Your task to perform on an android device: Open Chrome and go to settings Image 0: 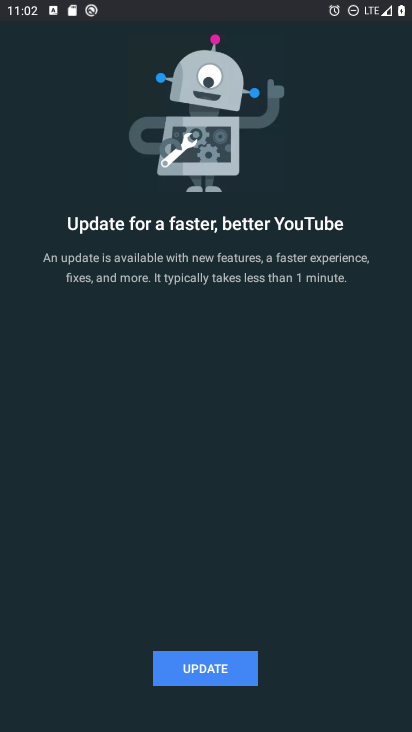
Step 0: press home button
Your task to perform on an android device: Open Chrome and go to settings Image 1: 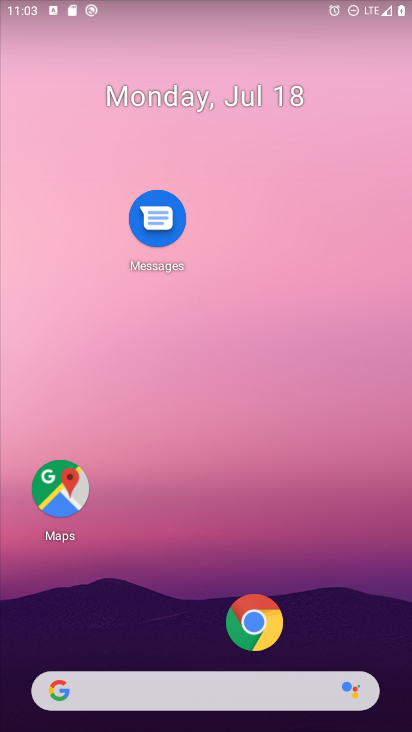
Step 1: drag from (195, 665) to (209, 156)
Your task to perform on an android device: Open Chrome and go to settings Image 2: 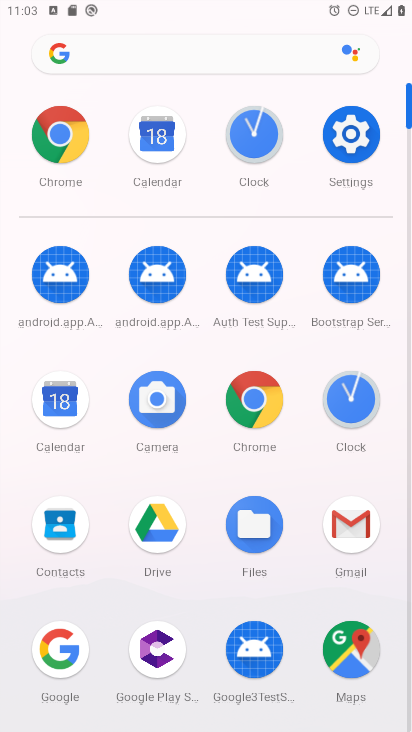
Step 2: click (254, 421)
Your task to perform on an android device: Open Chrome and go to settings Image 3: 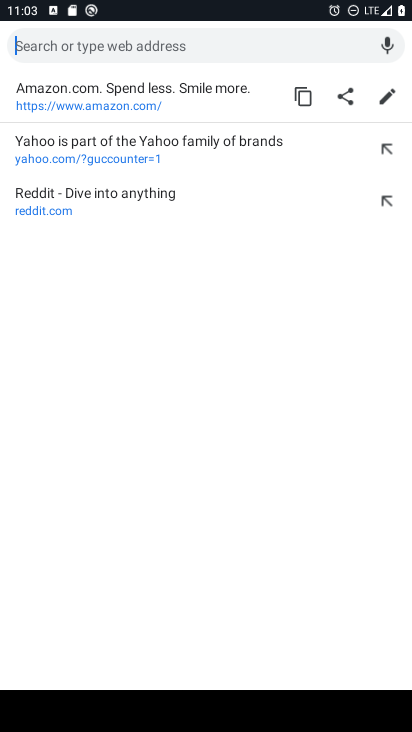
Step 3: press back button
Your task to perform on an android device: Open Chrome and go to settings Image 4: 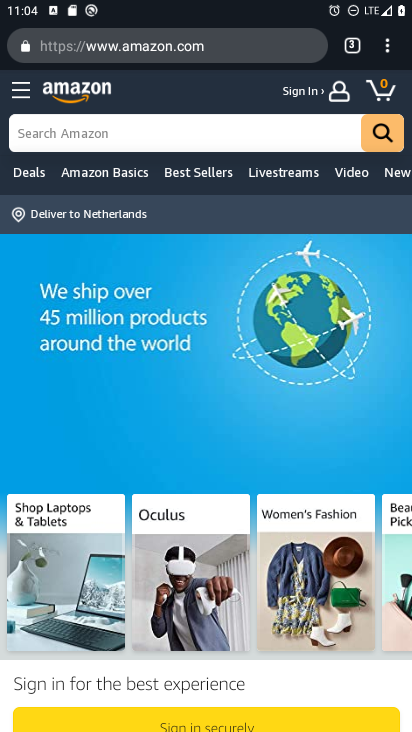
Step 4: click (388, 58)
Your task to perform on an android device: Open Chrome and go to settings Image 5: 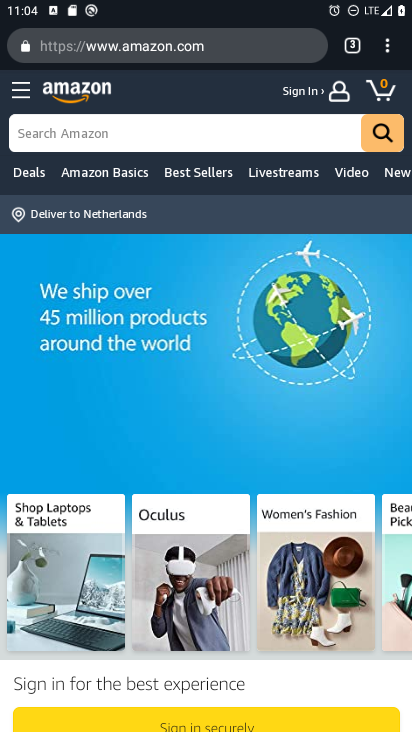
Step 5: click (389, 58)
Your task to perform on an android device: Open Chrome and go to settings Image 6: 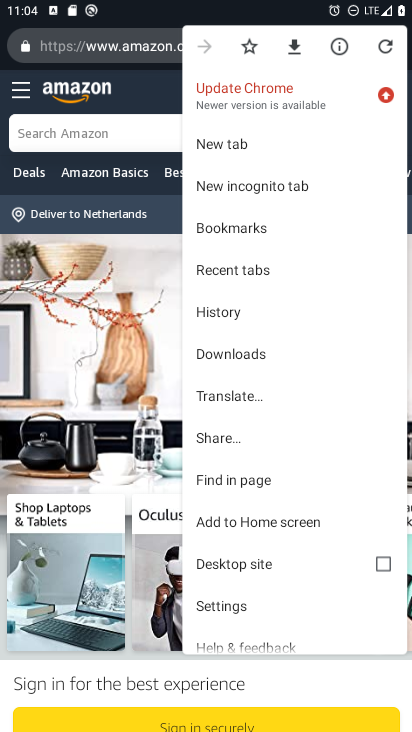
Step 6: click (240, 607)
Your task to perform on an android device: Open Chrome and go to settings Image 7: 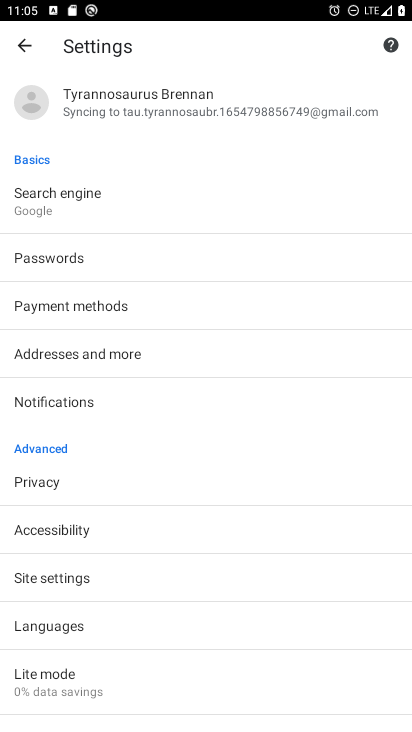
Step 7: task complete